Your task to perform on an android device: turn on improve location accuracy Image 0: 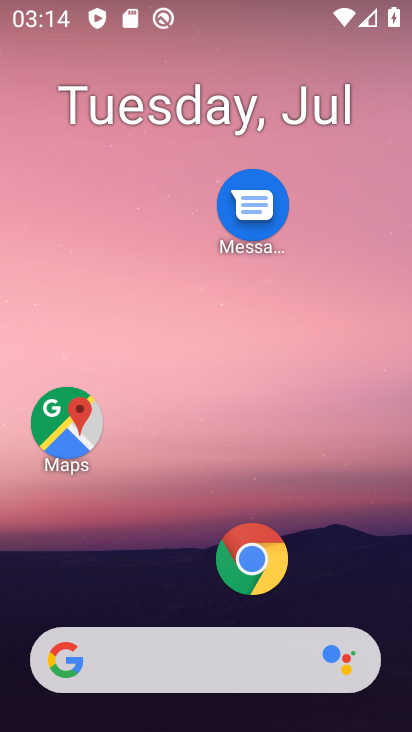
Step 0: drag from (137, 473) to (180, 47)
Your task to perform on an android device: turn on improve location accuracy Image 1: 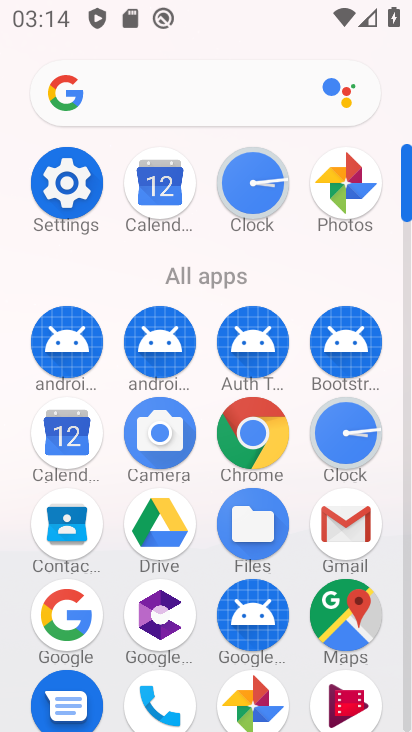
Step 1: click (91, 193)
Your task to perform on an android device: turn on improve location accuracy Image 2: 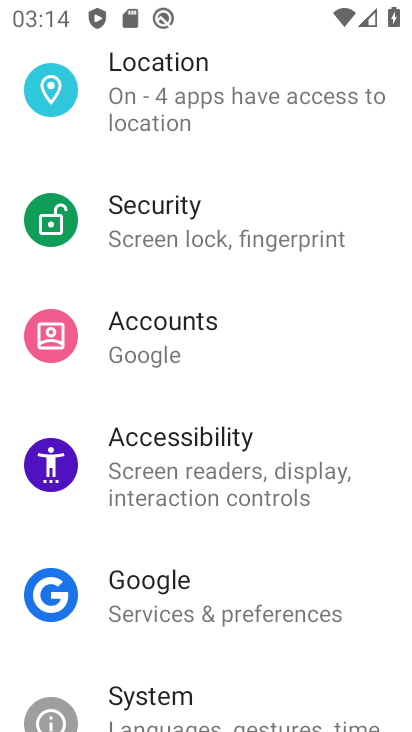
Step 2: click (168, 101)
Your task to perform on an android device: turn on improve location accuracy Image 3: 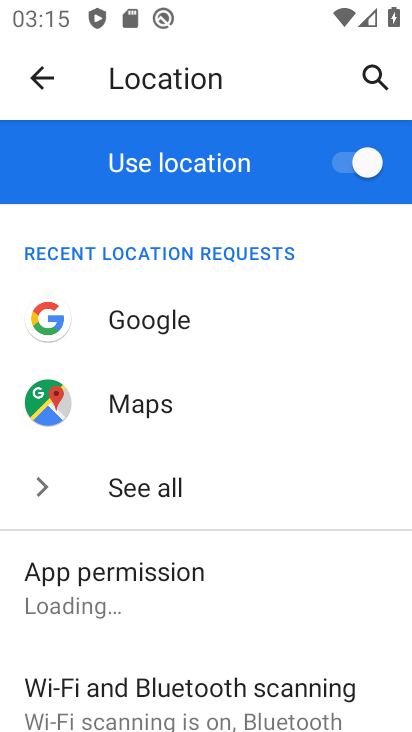
Step 3: drag from (150, 640) to (237, 188)
Your task to perform on an android device: turn on improve location accuracy Image 4: 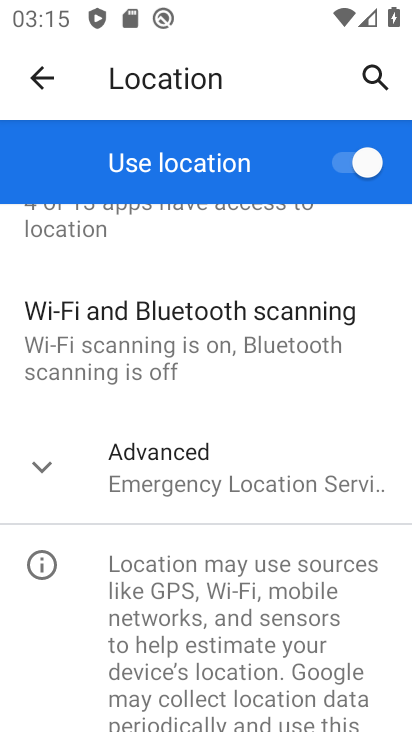
Step 4: click (213, 479)
Your task to perform on an android device: turn on improve location accuracy Image 5: 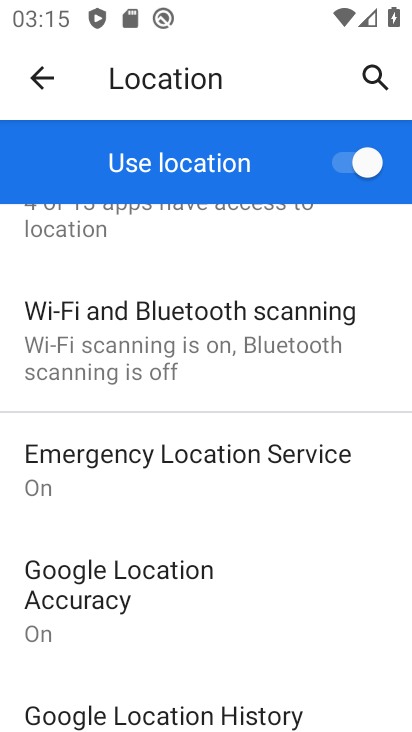
Step 5: click (125, 589)
Your task to perform on an android device: turn on improve location accuracy Image 6: 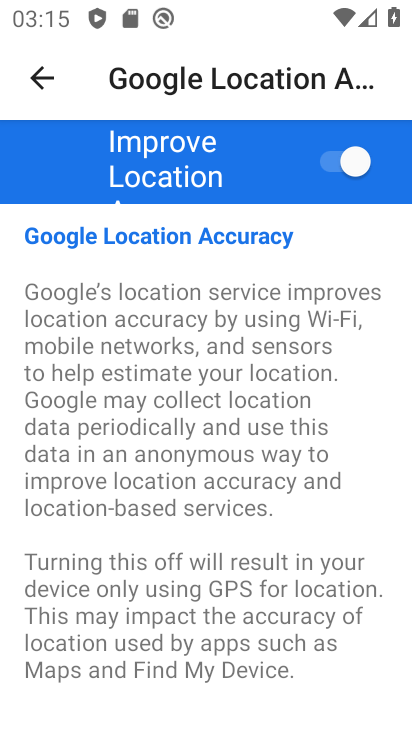
Step 6: task complete